Your task to perform on an android device: Go to notification settings Image 0: 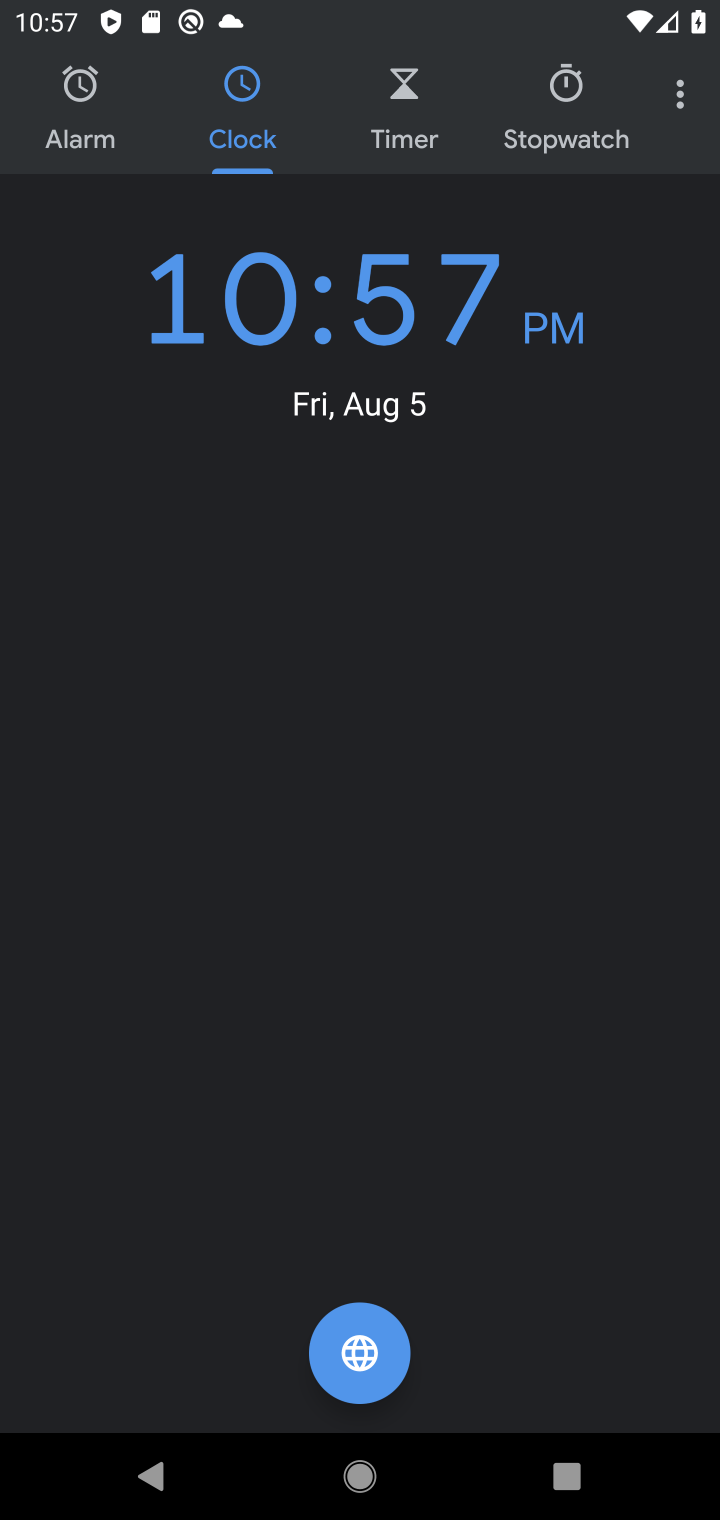
Step 0: press home button
Your task to perform on an android device: Go to notification settings Image 1: 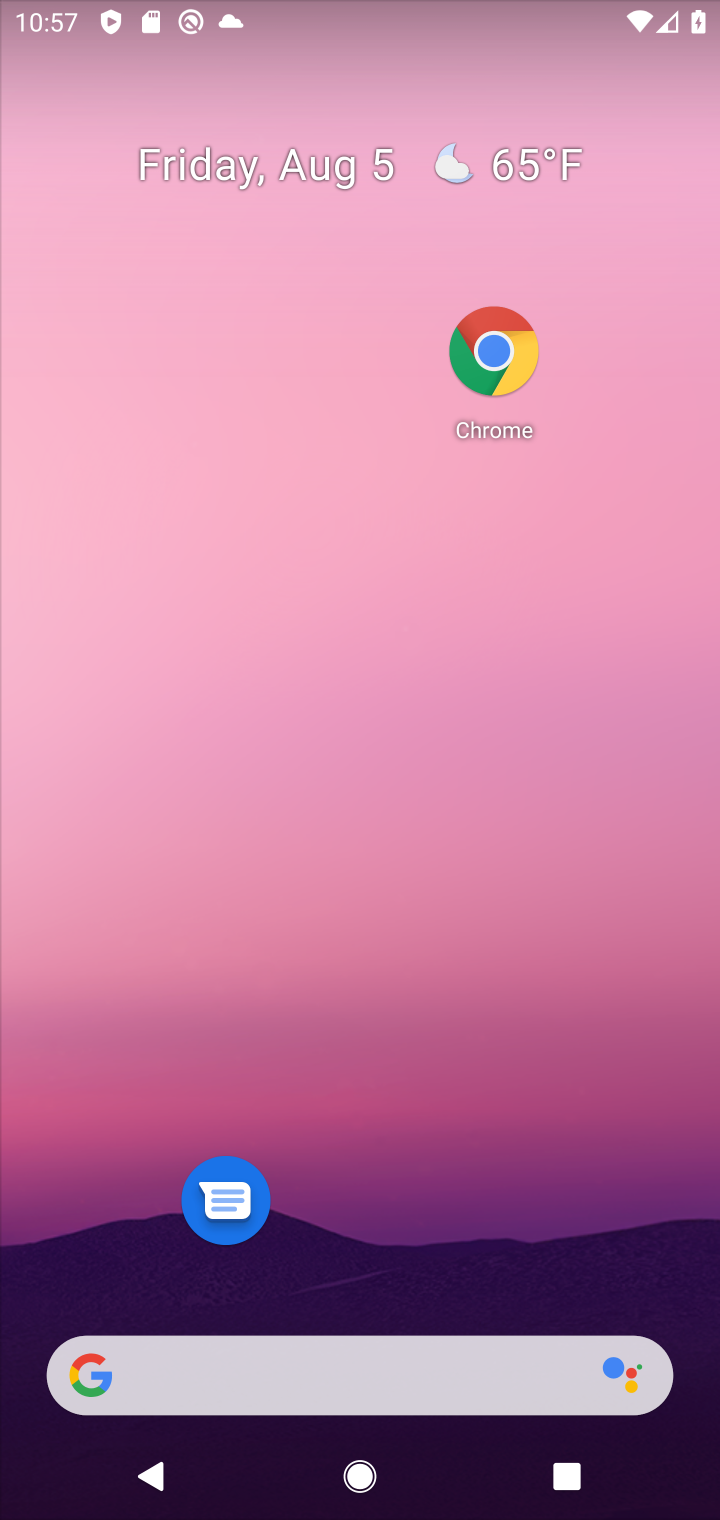
Step 1: drag from (514, 785) to (589, 324)
Your task to perform on an android device: Go to notification settings Image 2: 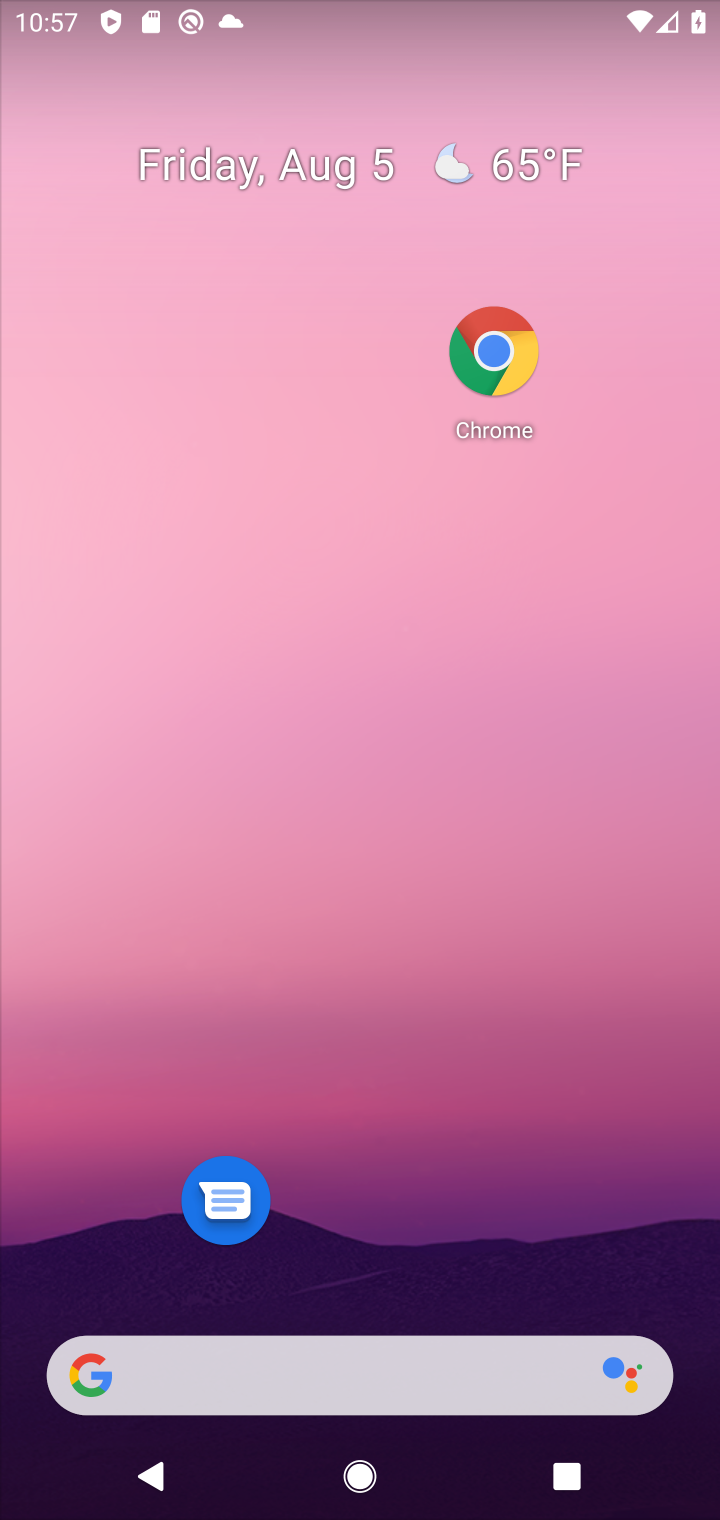
Step 2: drag from (427, 831) to (440, 44)
Your task to perform on an android device: Go to notification settings Image 3: 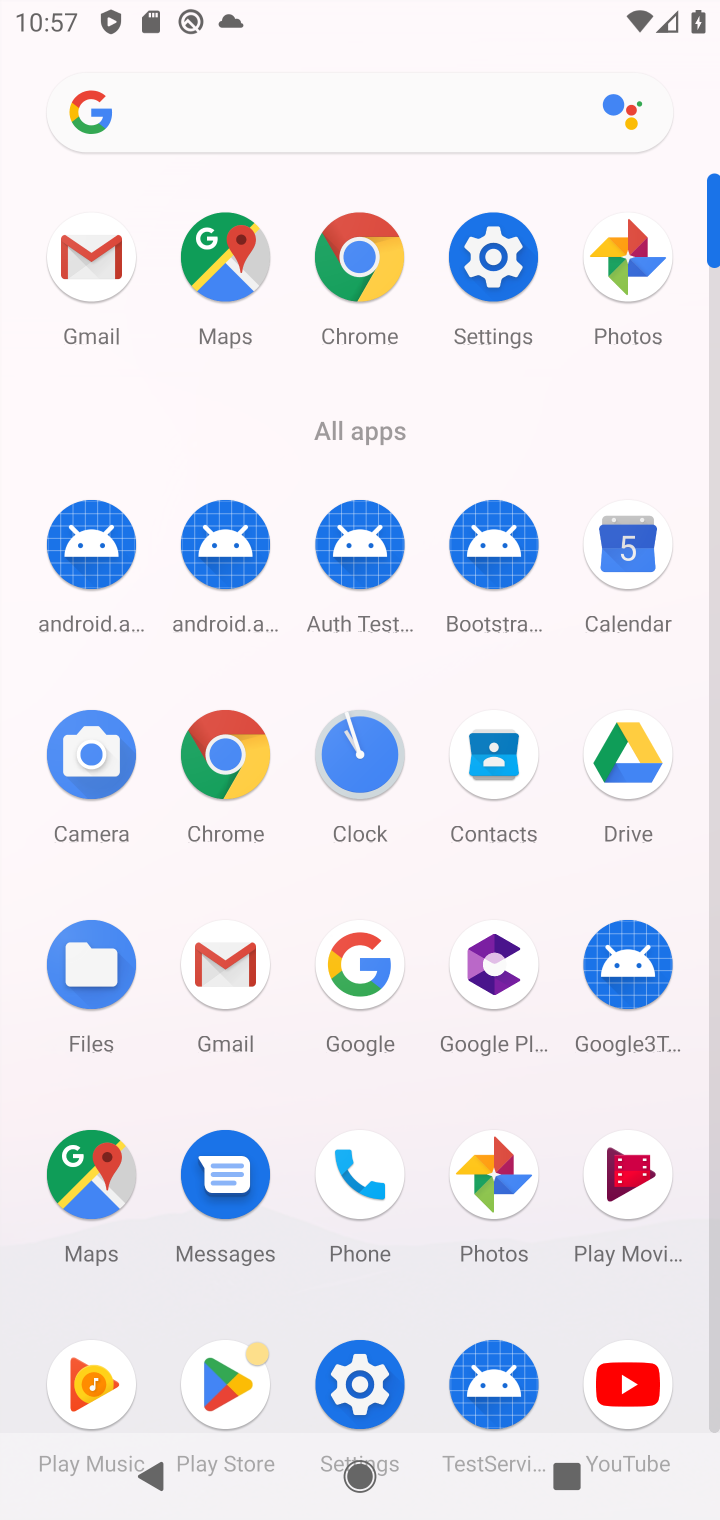
Step 3: click (497, 280)
Your task to perform on an android device: Go to notification settings Image 4: 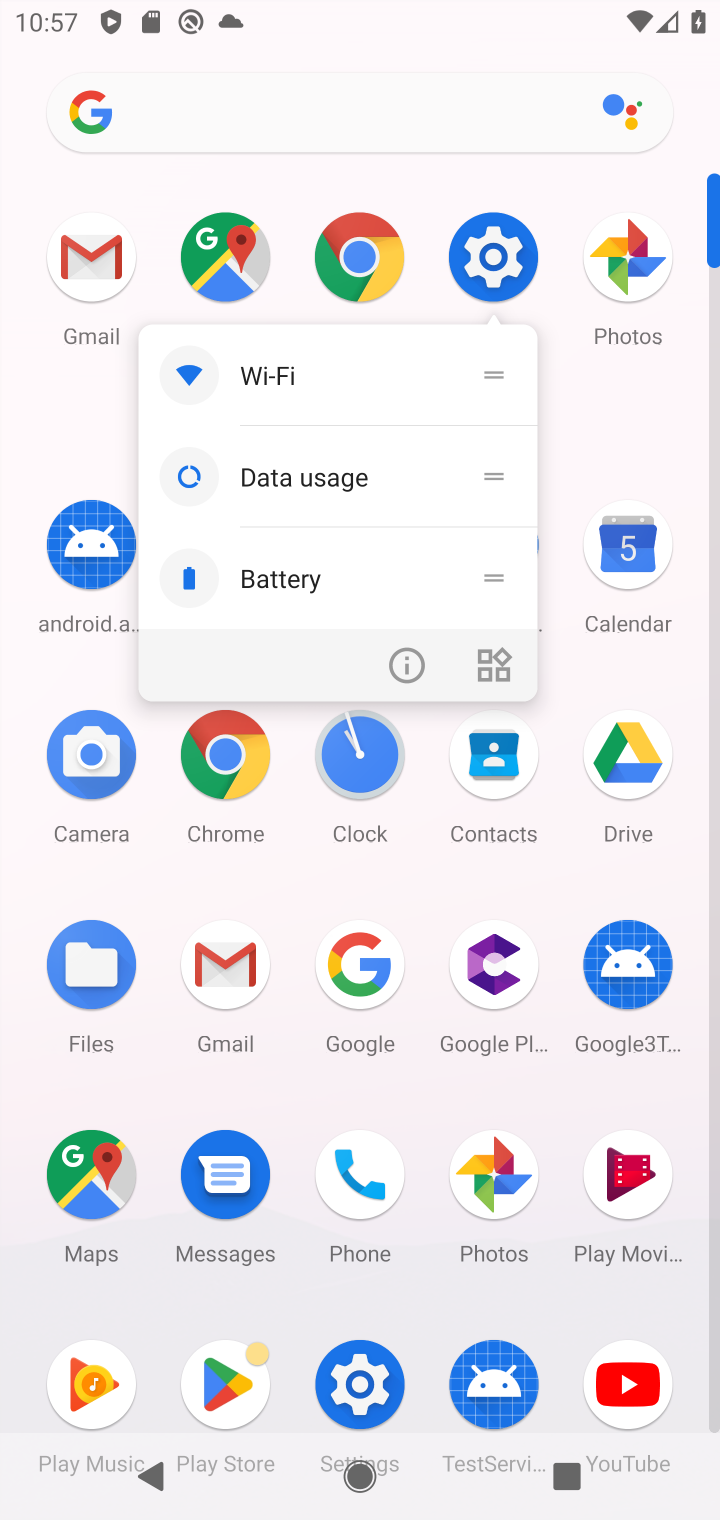
Step 4: click (511, 252)
Your task to perform on an android device: Go to notification settings Image 5: 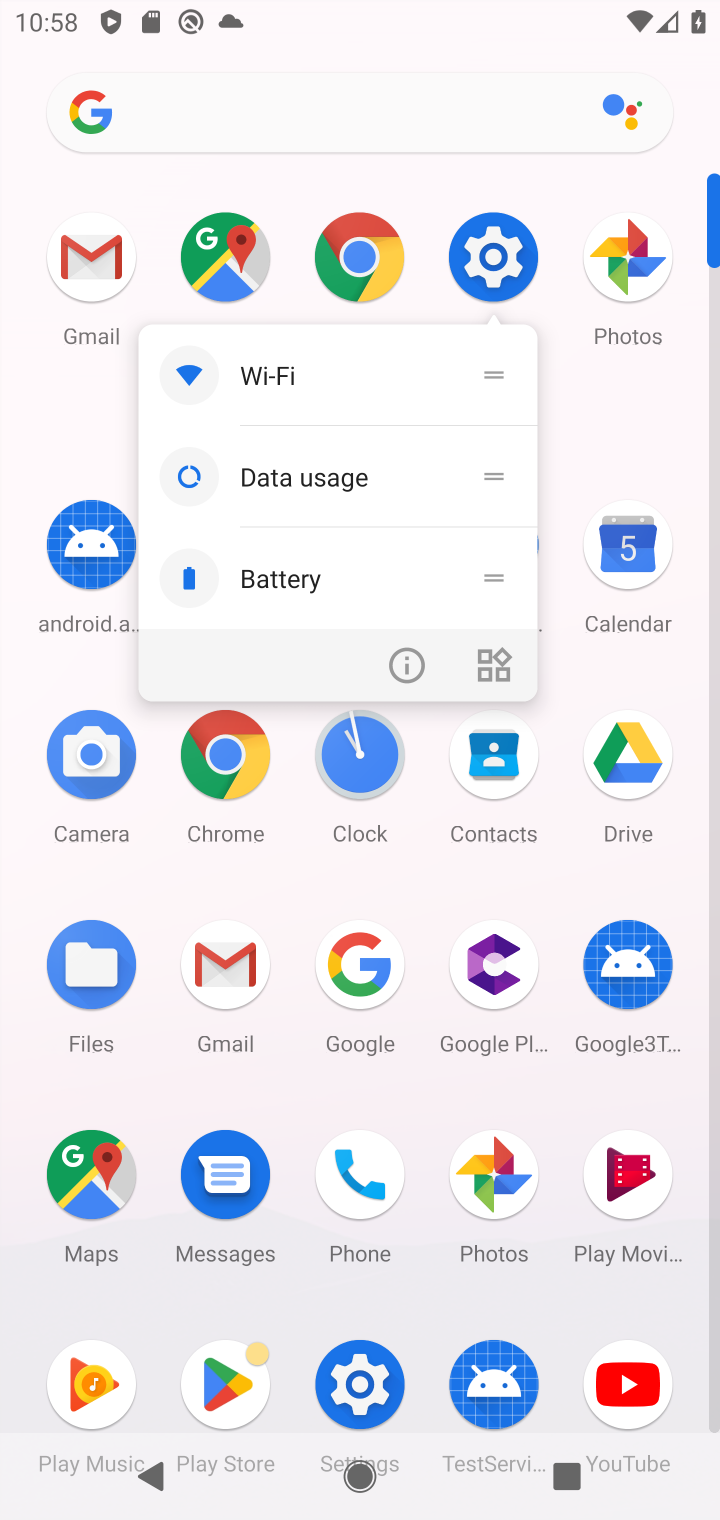
Step 5: click (511, 248)
Your task to perform on an android device: Go to notification settings Image 6: 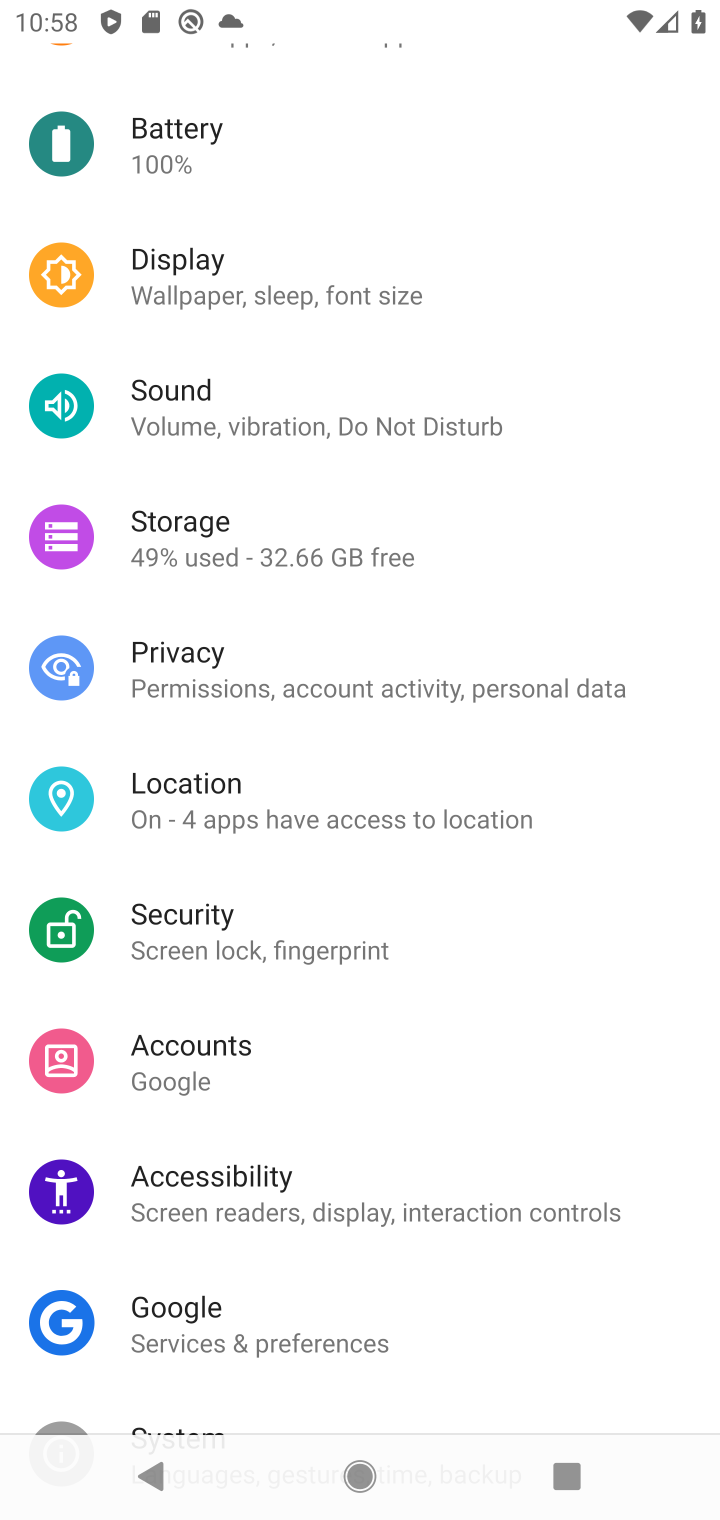
Step 6: drag from (298, 1010) to (292, 1269)
Your task to perform on an android device: Go to notification settings Image 7: 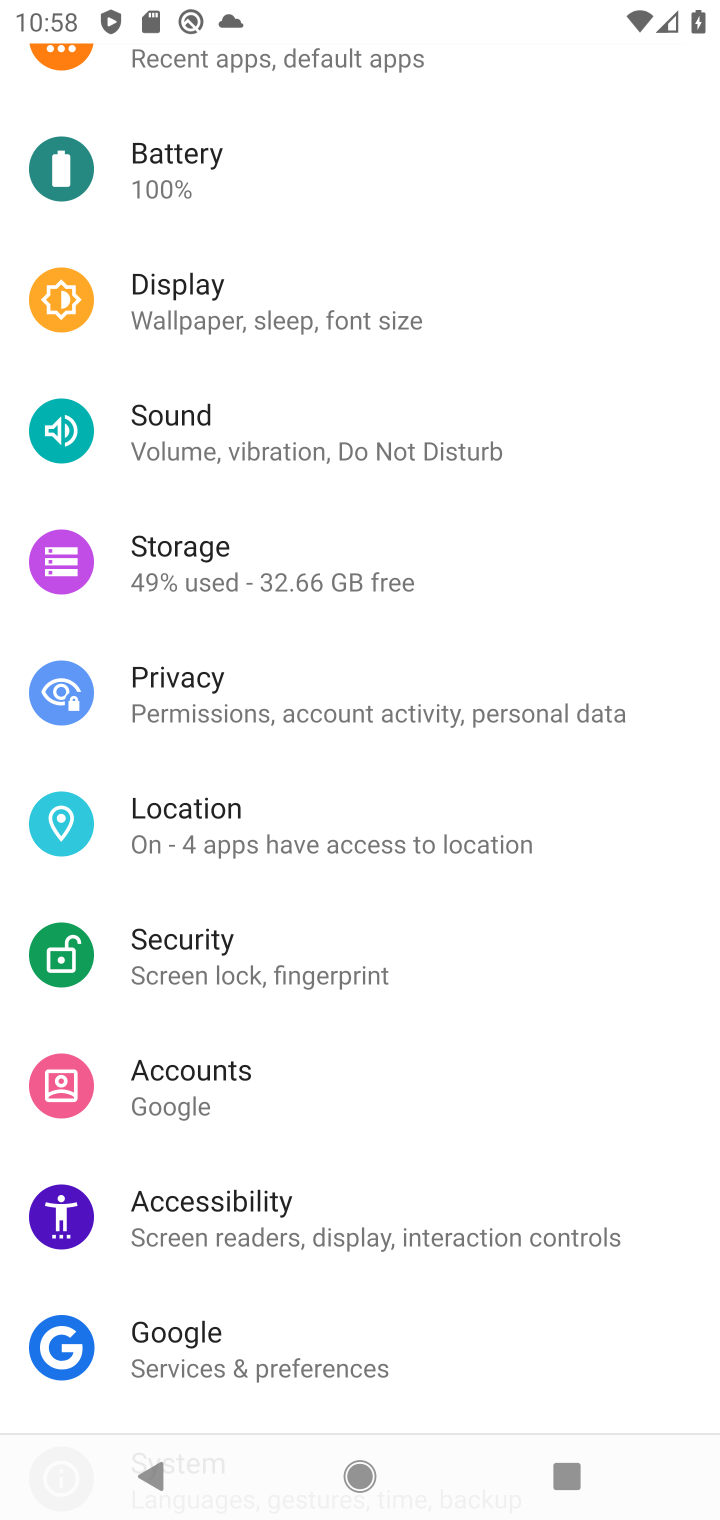
Step 7: drag from (250, 336) to (244, 851)
Your task to perform on an android device: Go to notification settings Image 8: 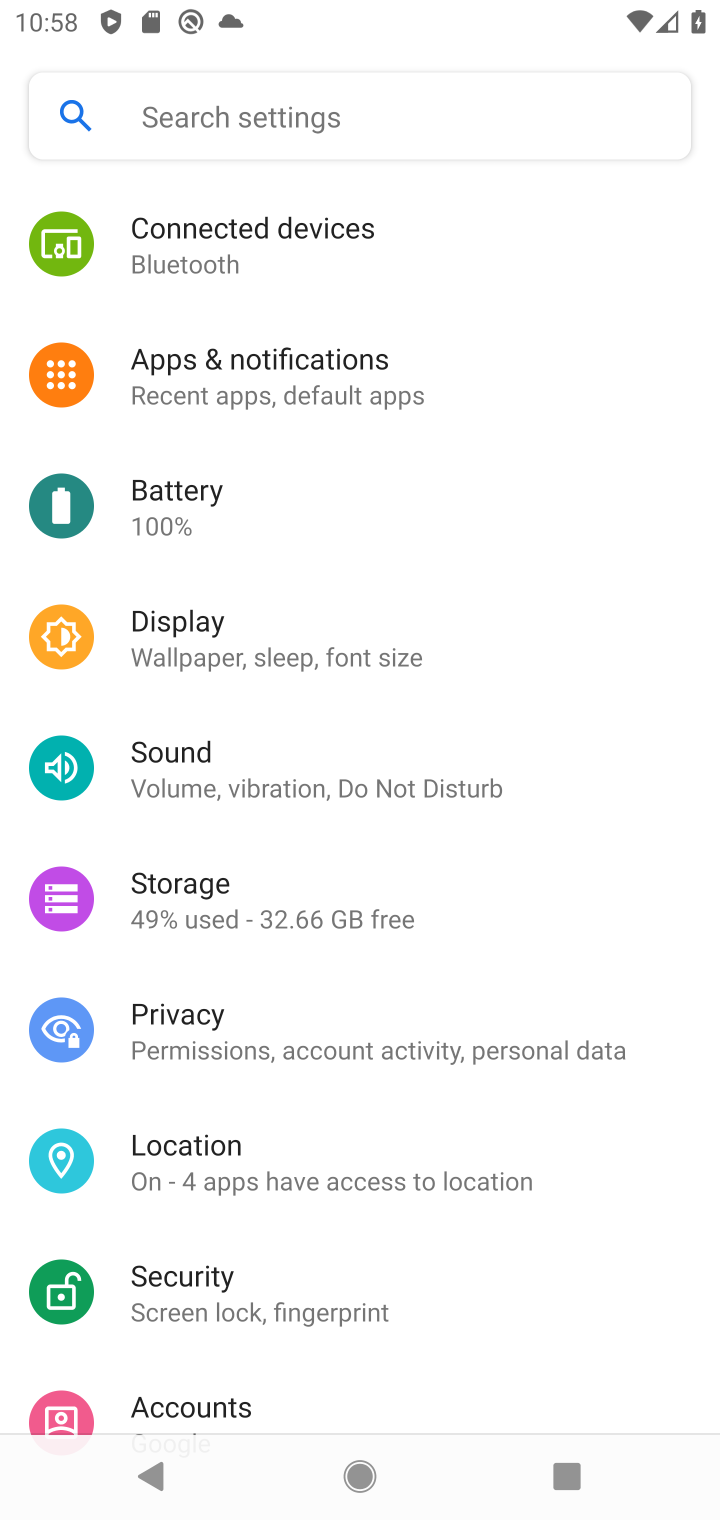
Step 8: click (295, 372)
Your task to perform on an android device: Go to notification settings Image 9: 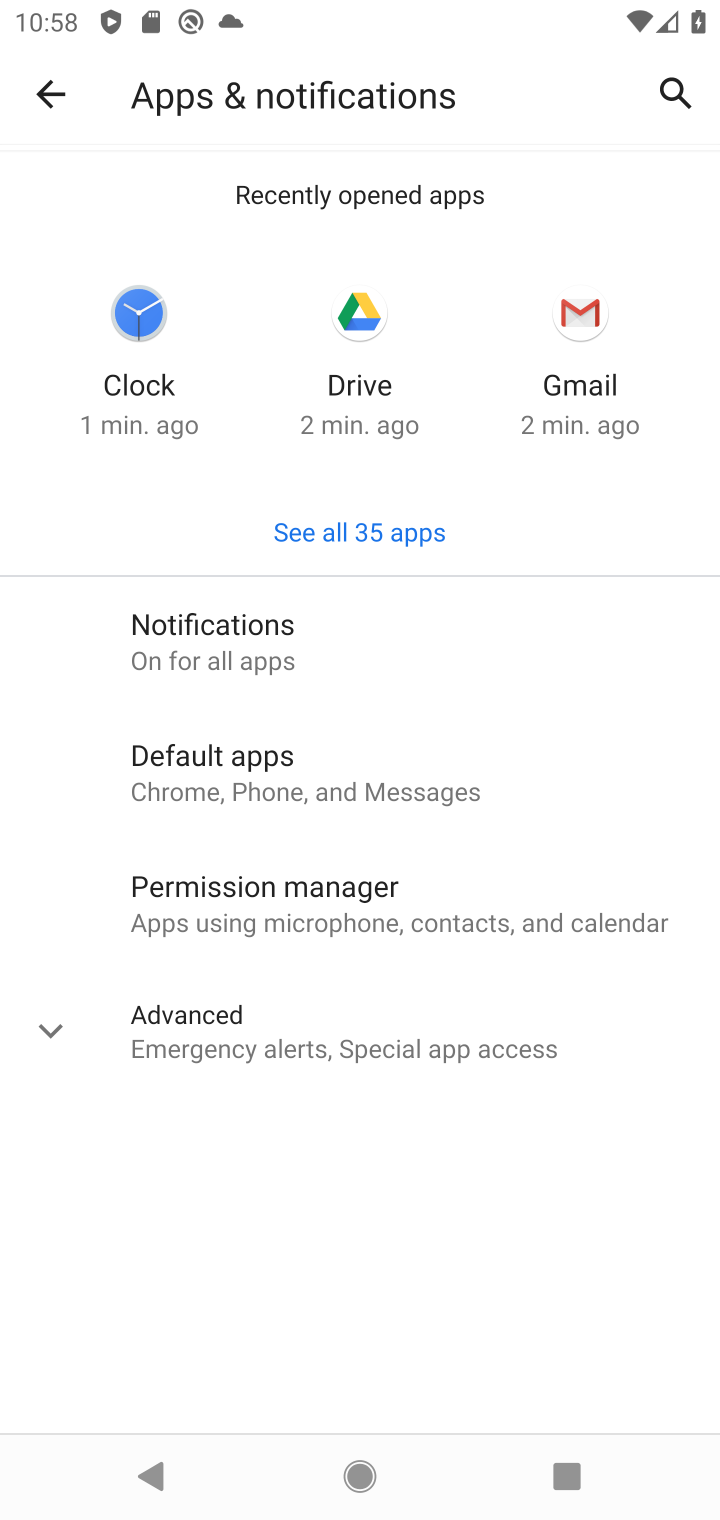
Step 9: click (305, 663)
Your task to perform on an android device: Go to notification settings Image 10: 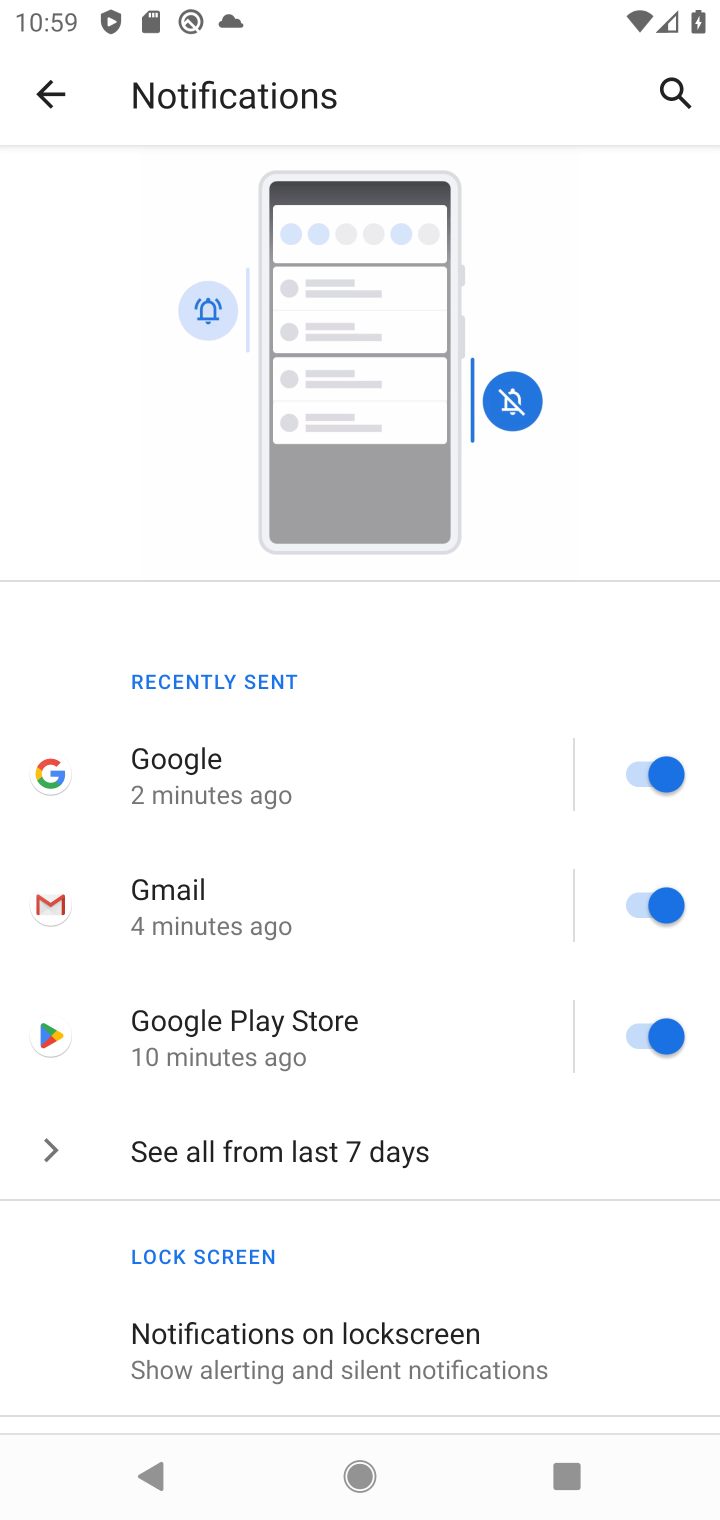
Step 10: task complete